Your task to perform on an android device: toggle wifi Image 0: 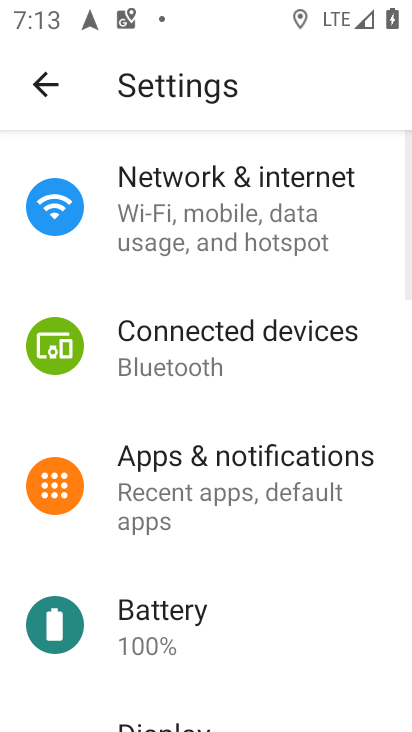
Step 0: click (195, 183)
Your task to perform on an android device: toggle wifi Image 1: 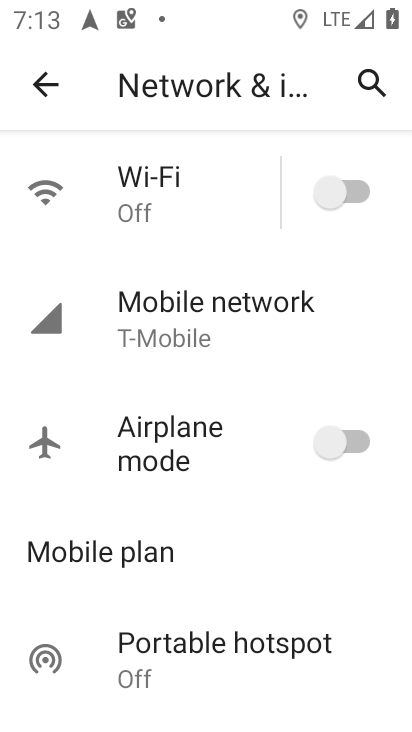
Step 1: click (331, 206)
Your task to perform on an android device: toggle wifi Image 2: 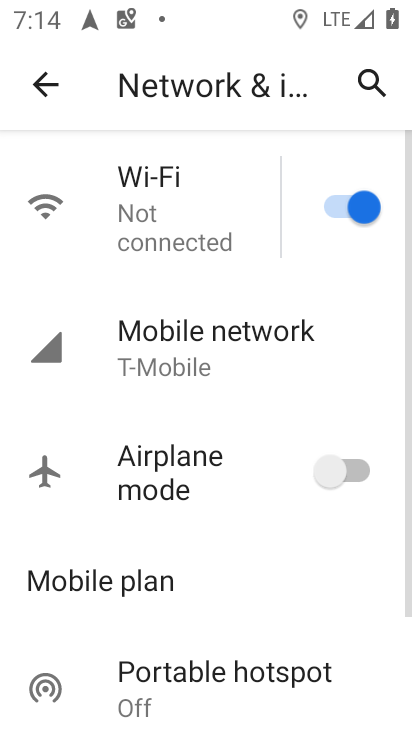
Step 2: task complete